Your task to perform on an android device: clear history in the chrome app Image 0: 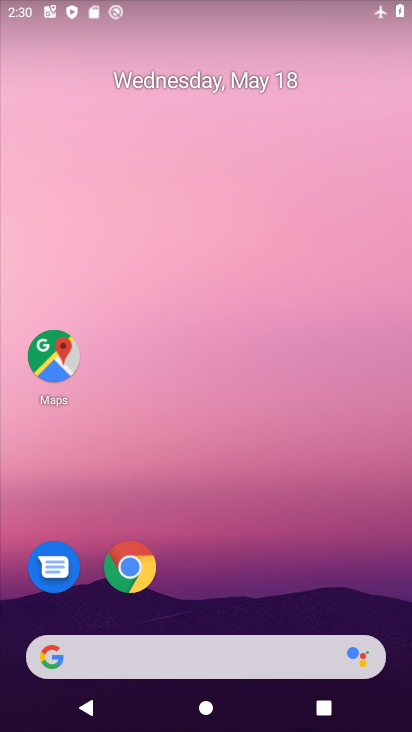
Step 0: drag from (273, 601) to (276, 244)
Your task to perform on an android device: clear history in the chrome app Image 1: 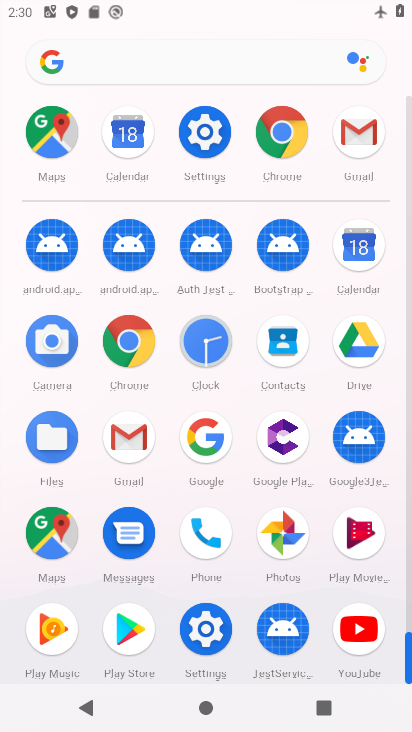
Step 1: click (272, 120)
Your task to perform on an android device: clear history in the chrome app Image 2: 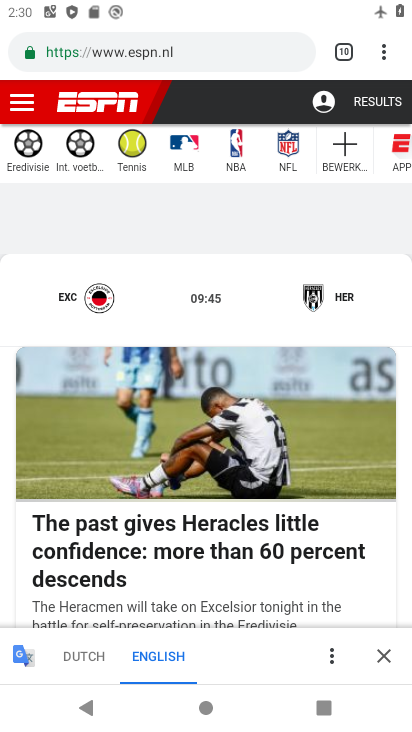
Step 2: click (391, 43)
Your task to perform on an android device: clear history in the chrome app Image 3: 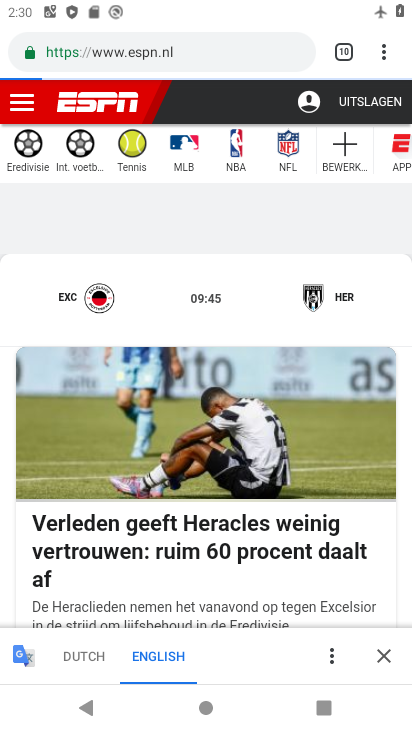
Step 3: click (379, 57)
Your task to perform on an android device: clear history in the chrome app Image 4: 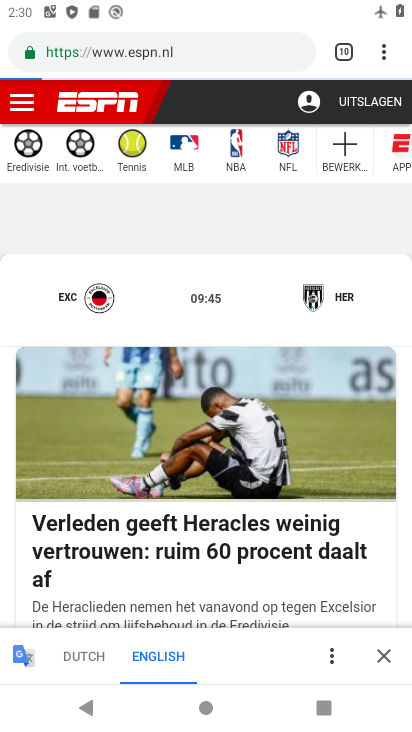
Step 4: click (379, 57)
Your task to perform on an android device: clear history in the chrome app Image 5: 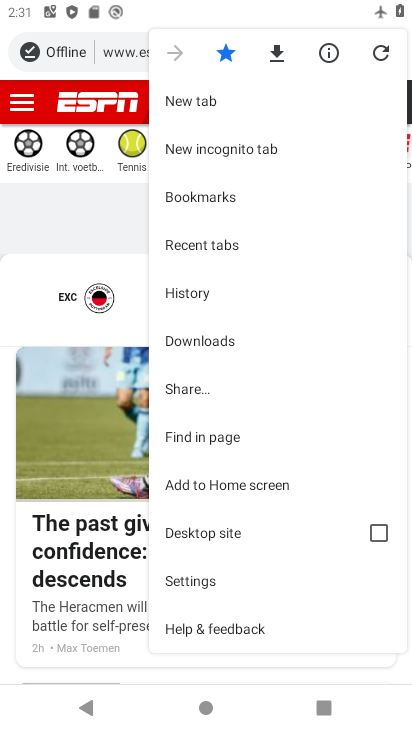
Step 5: click (208, 300)
Your task to perform on an android device: clear history in the chrome app Image 6: 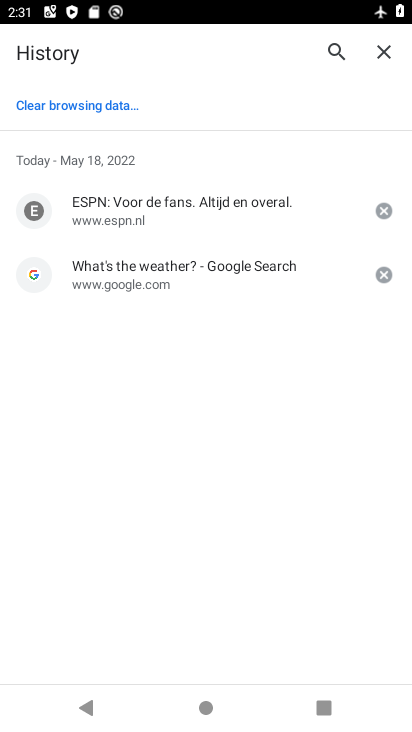
Step 6: click (95, 104)
Your task to perform on an android device: clear history in the chrome app Image 7: 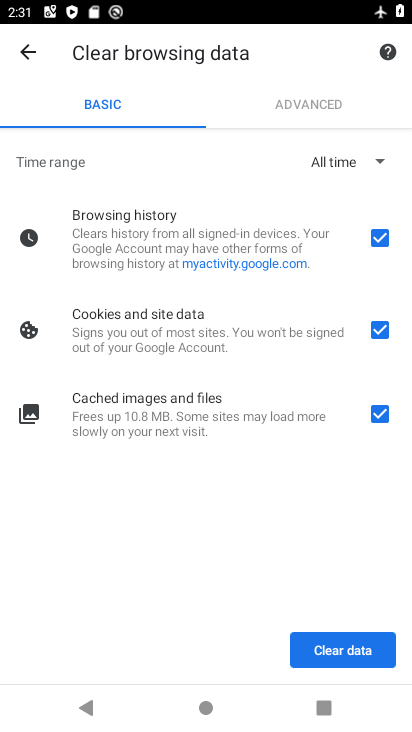
Step 7: click (355, 652)
Your task to perform on an android device: clear history in the chrome app Image 8: 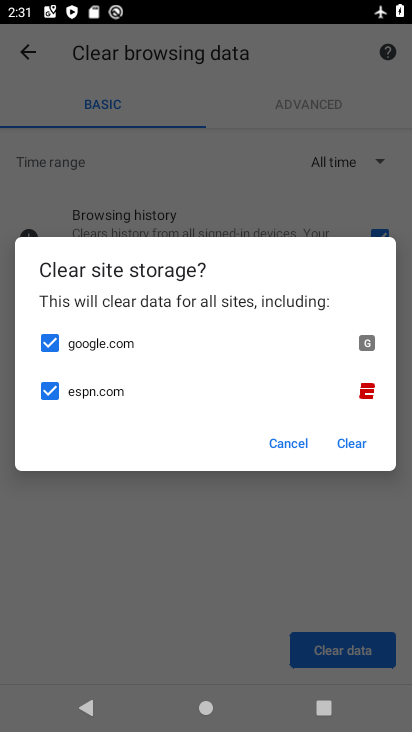
Step 8: click (352, 445)
Your task to perform on an android device: clear history in the chrome app Image 9: 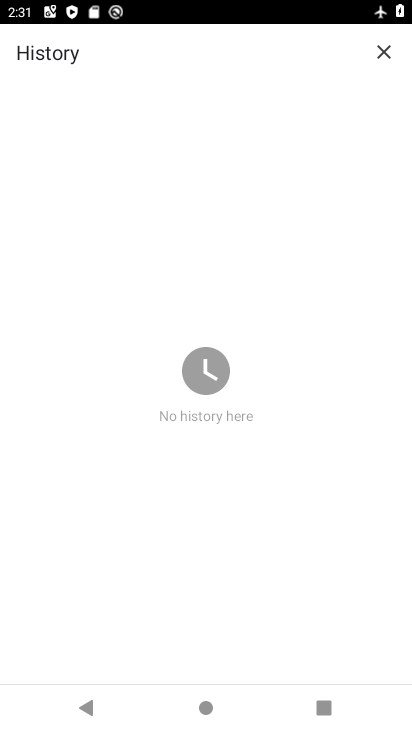
Step 9: task complete